Your task to perform on an android device: open the mobile data screen to see how much data has been used Image 0: 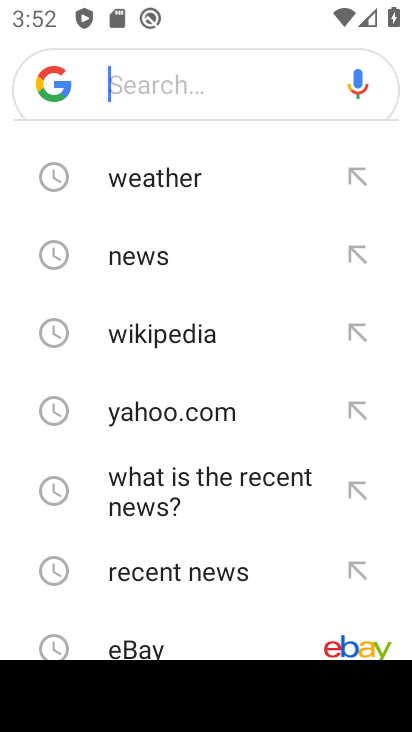
Step 0: press home button
Your task to perform on an android device: open the mobile data screen to see how much data has been used Image 1: 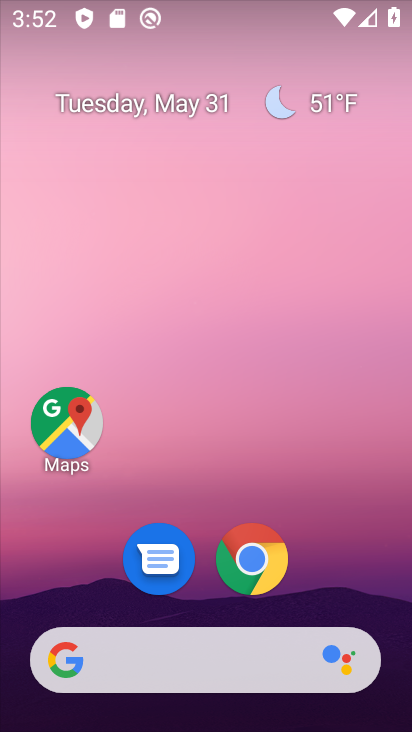
Step 1: drag from (325, 575) to (322, 49)
Your task to perform on an android device: open the mobile data screen to see how much data has been used Image 2: 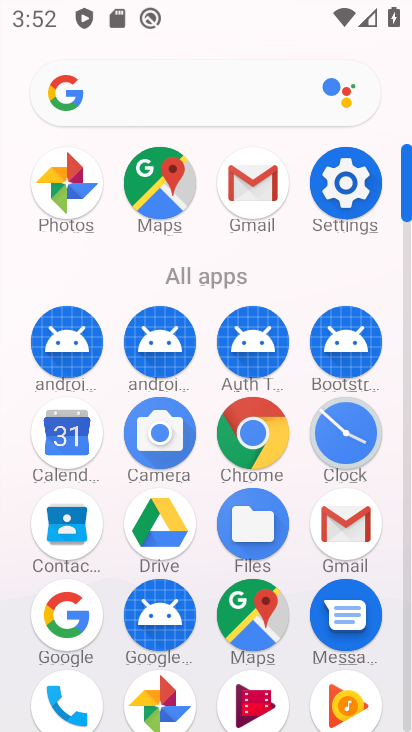
Step 2: click (343, 191)
Your task to perform on an android device: open the mobile data screen to see how much data has been used Image 3: 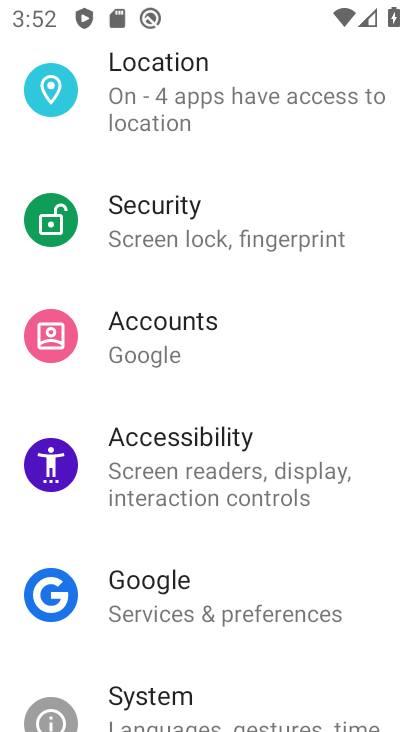
Step 3: drag from (188, 306) to (190, 613)
Your task to perform on an android device: open the mobile data screen to see how much data has been used Image 4: 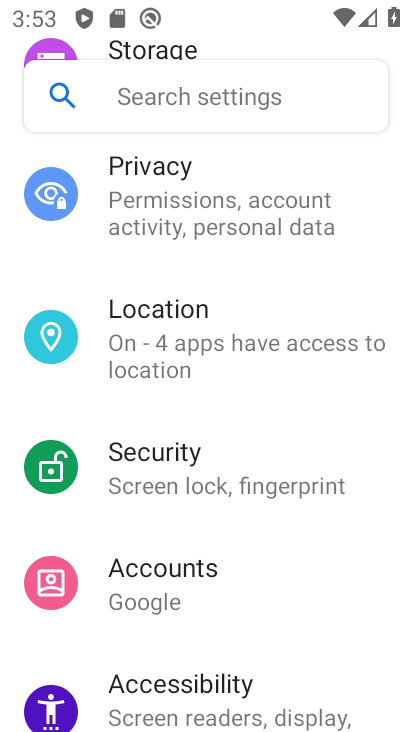
Step 4: drag from (195, 281) to (209, 730)
Your task to perform on an android device: open the mobile data screen to see how much data has been used Image 5: 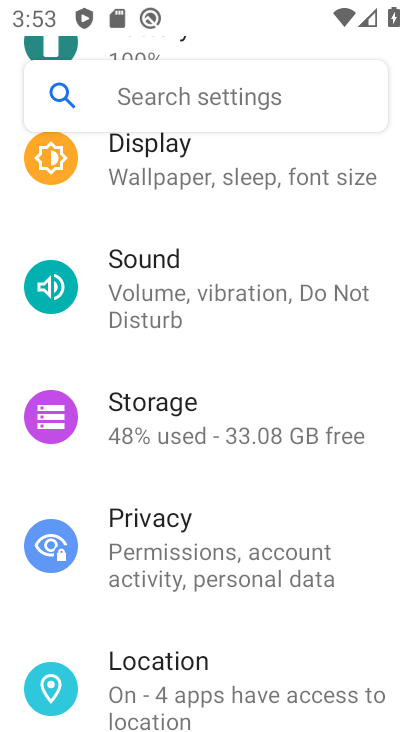
Step 5: drag from (213, 329) to (178, 707)
Your task to perform on an android device: open the mobile data screen to see how much data has been used Image 6: 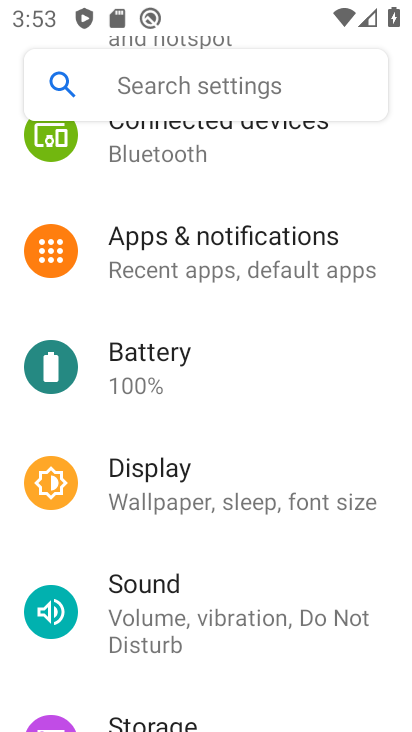
Step 6: drag from (239, 254) to (233, 623)
Your task to perform on an android device: open the mobile data screen to see how much data has been used Image 7: 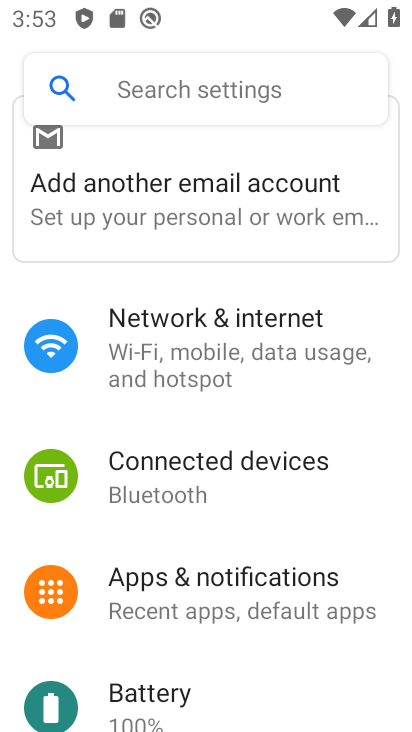
Step 7: click (182, 335)
Your task to perform on an android device: open the mobile data screen to see how much data has been used Image 8: 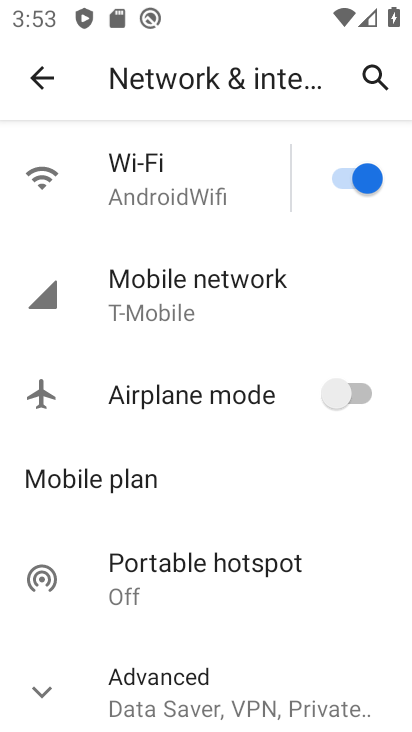
Step 8: click (158, 309)
Your task to perform on an android device: open the mobile data screen to see how much data has been used Image 9: 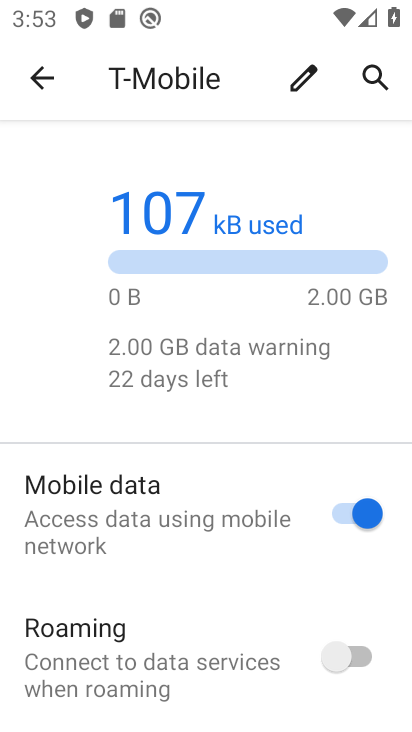
Step 9: drag from (164, 620) to (164, 208)
Your task to perform on an android device: open the mobile data screen to see how much data has been used Image 10: 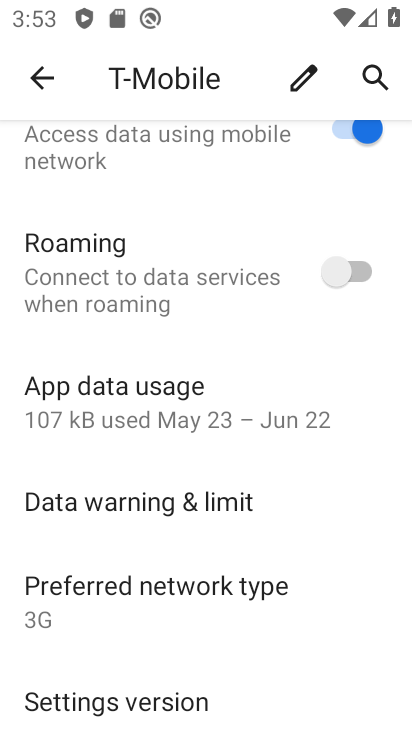
Step 10: click (109, 425)
Your task to perform on an android device: open the mobile data screen to see how much data has been used Image 11: 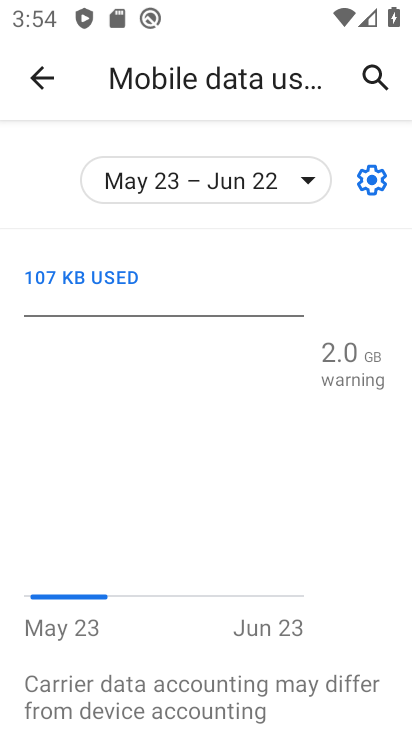
Step 11: task complete